Your task to perform on an android device: choose inbox layout in the gmail app Image 0: 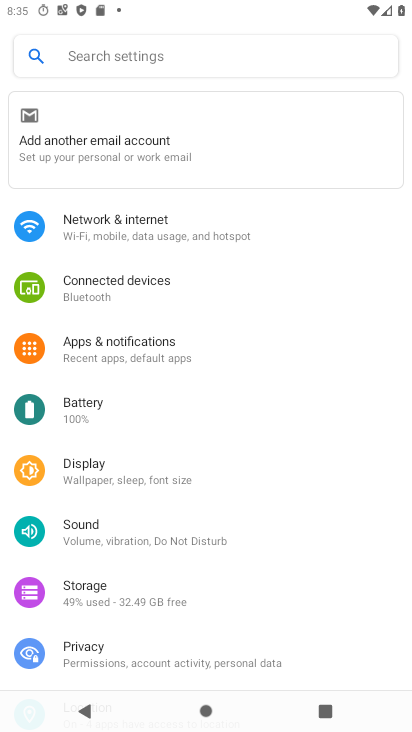
Step 0: press home button
Your task to perform on an android device: choose inbox layout in the gmail app Image 1: 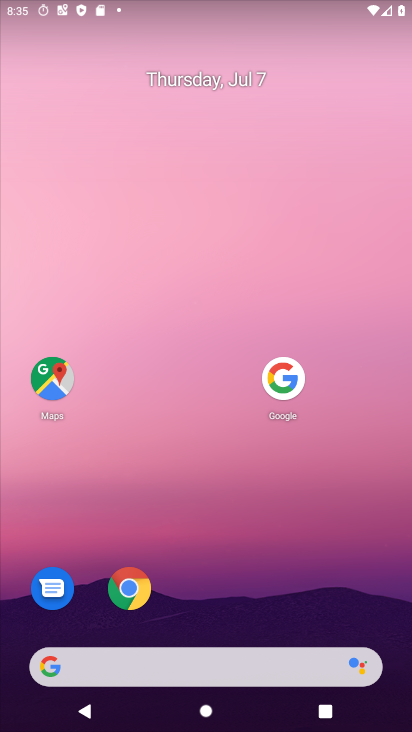
Step 1: drag from (242, 667) to (334, 124)
Your task to perform on an android device: choose inbox layout in the gmail app Image 2: 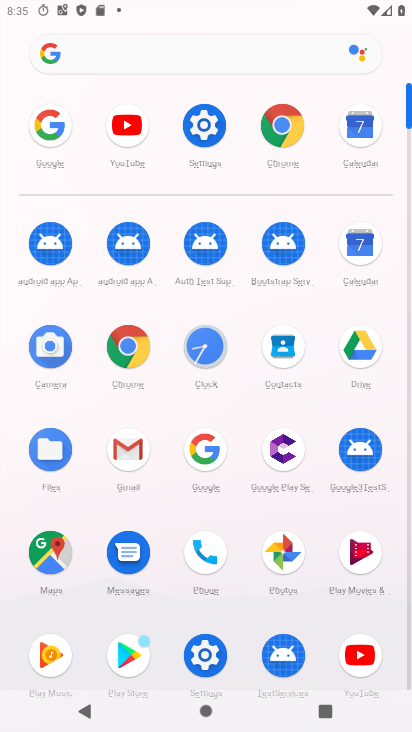
Step 2: click (128, 445)
Your task to perform on an android device: choose inbox layout in the gmail app Image 3: 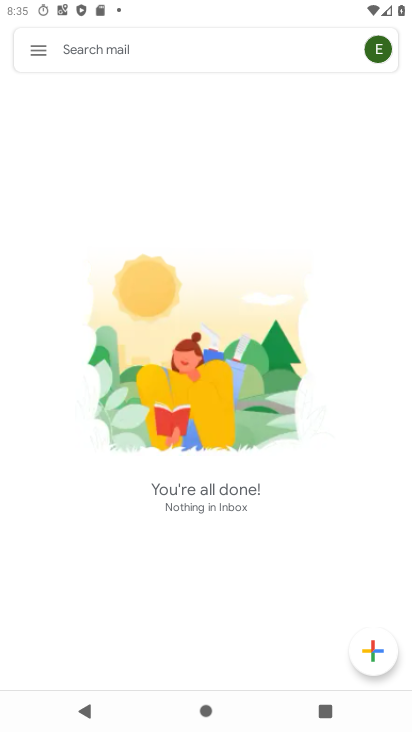
Step 3: click (42, 49)
Your task to perform on an android device: choose inbox layout in the gmail app Image 4: 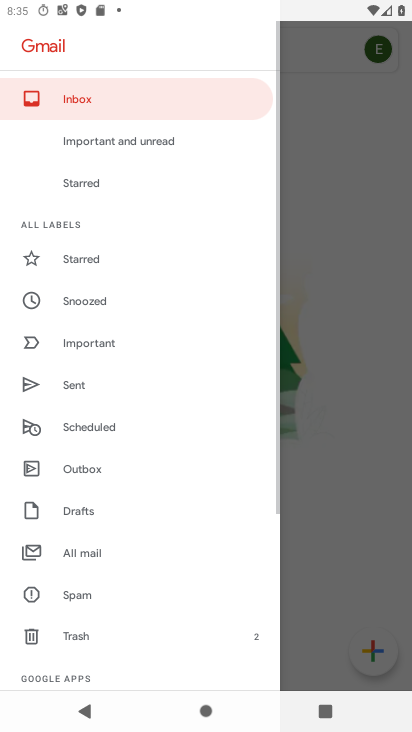
Step 4: drag from (120, 631) to (316, 109)
Your task to perform on an android device: choose inbox layout in the gmail app Image 5: 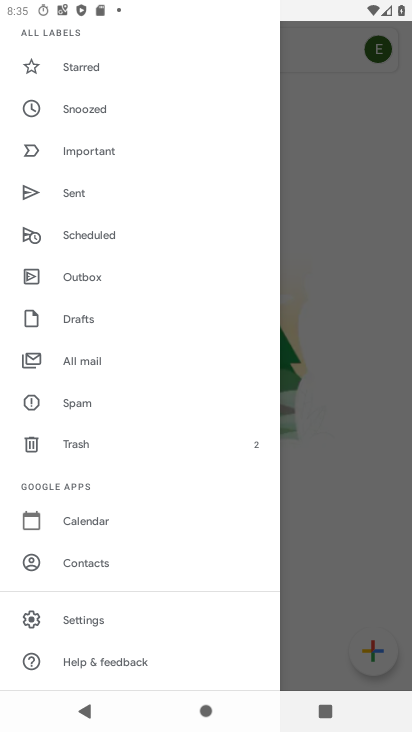
Step 5: click (93, 623)
Your task to perform on an android device: choose inbox layout in the gmail app Image 6: 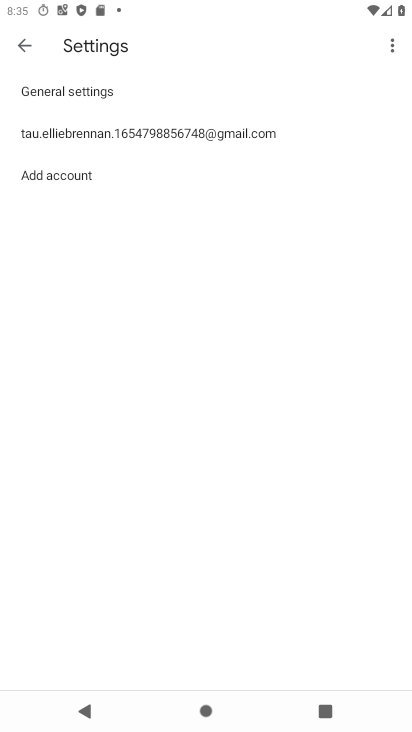
Step 6: click (129, 135)
Your task to perform on an android device: choose inbox layout in the gmail app Image 7: 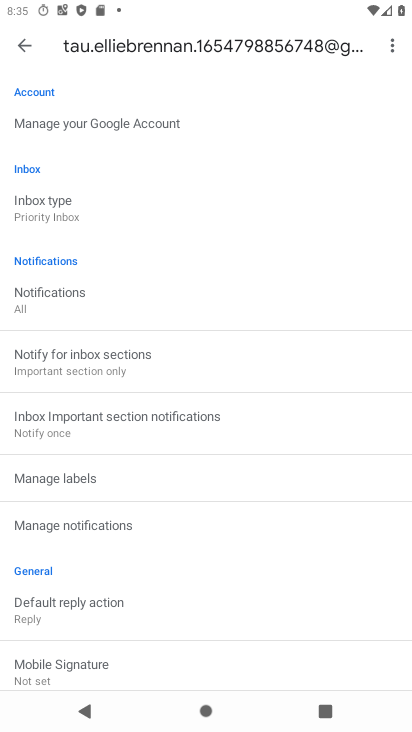
Step 7: click (62, 209)
Your task to perform on an android device: choose inbox layout in the gmail app Image 8: 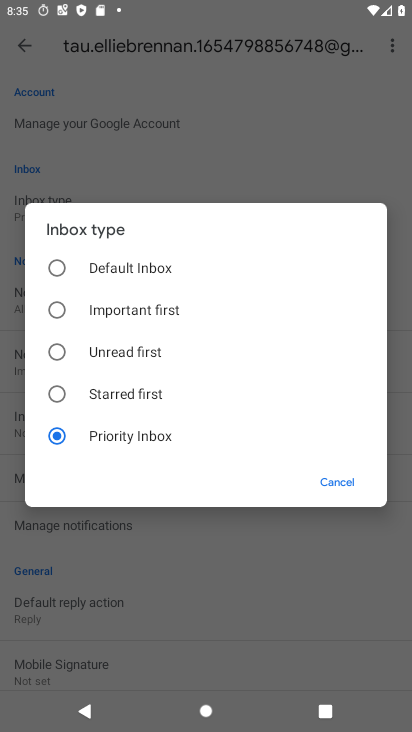
Step 8: click (56, 269)
Your task to perform on an android device: choose inbox layout in the gmail app Image 9: 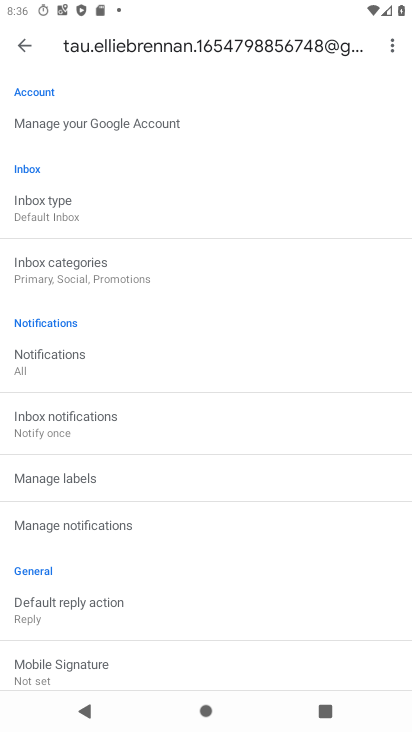
Step 9: task complete